Your task to perform on an android device: check battery use Image 0: 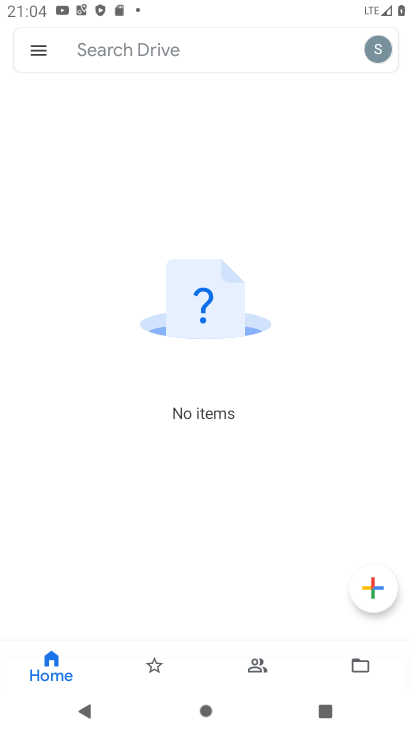
Step 0: press home button
Your task to perform on an android device: check battery use Image 1: 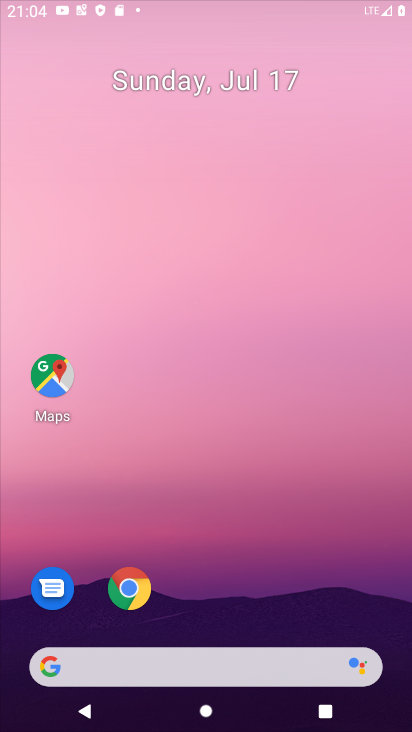
Step 1: drag from (228, 612) to (197, 25)
Your task to perform on an android device: check battery use Image 2: 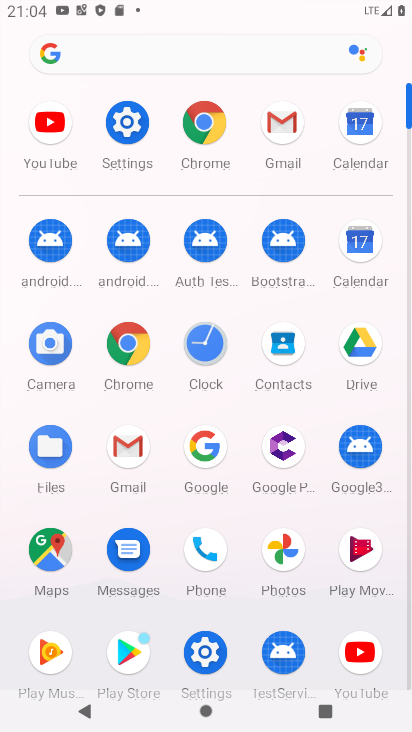
Step 2: click (212, 662)
Your task to perform on an android device: check battery use Image 3: 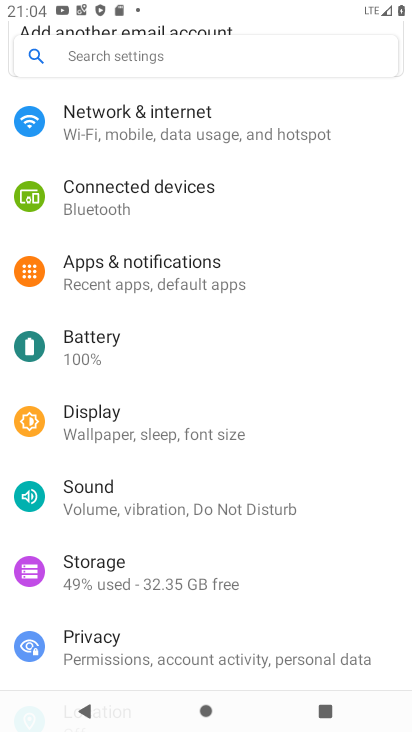
Step 3: click (25, 348)
Your task to perform on an android device: check battery use Image 4: 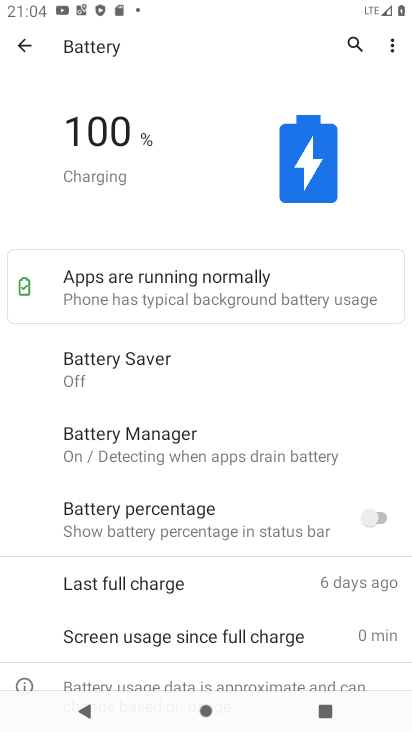
Step 4: task complete